Your task to perform on an android device: turn on bluetooth scan Image 0: 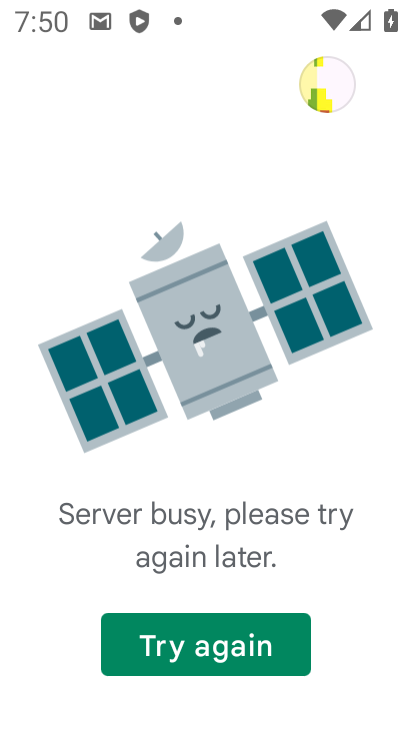
Step 0: press home button
Your task to perform on an android device: turn on bluetooth scan Image 1: 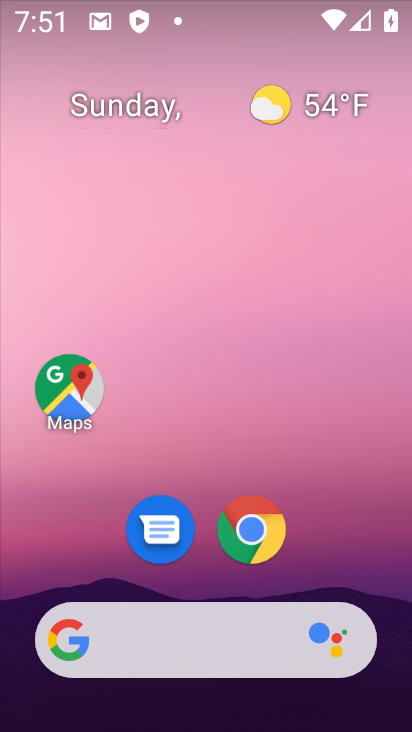
Step 1: drag from (237, 589) to (262, 78)
Your task to perform on an android device: turn on bluetooth scan Image 2: 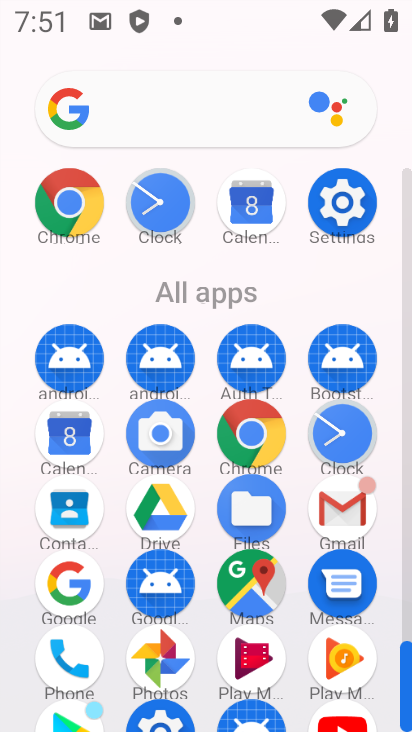
Step 2: click (343, 223)
Your task to perform on an android device: turn on bluetooth scan Image 3: 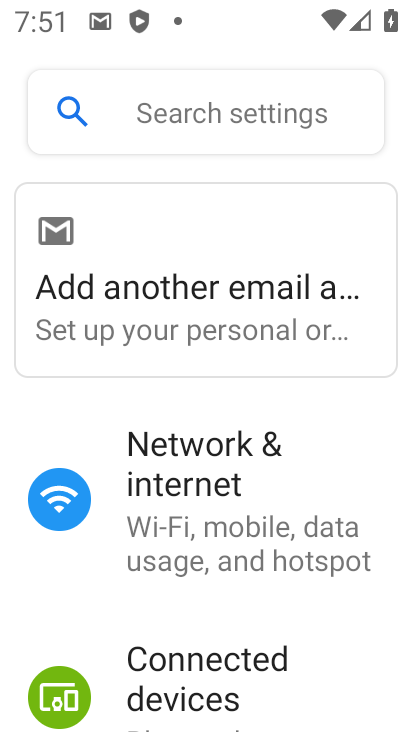
Step 3: drag from (204, 606) to (241, 329)
Your task to perform on an android device: turn on bluetooth scan Image 4: 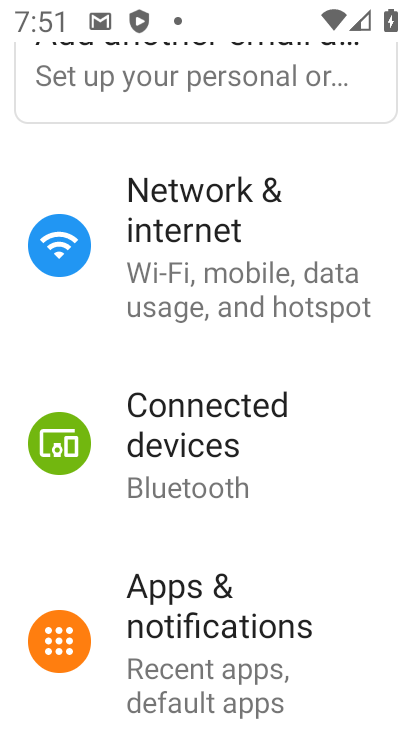
Step 4: drag from (222, 575) to (248, 247)
Your task to perform on an android device: turn on bluetooth scan Image 5: 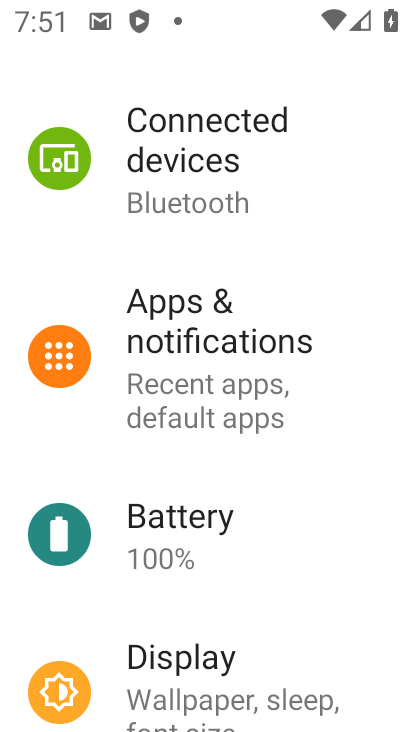
Step 5: drag from (209, 598) to (252, 291)
Your task to perform on an android device: turn on bluetooth scan Image 6: 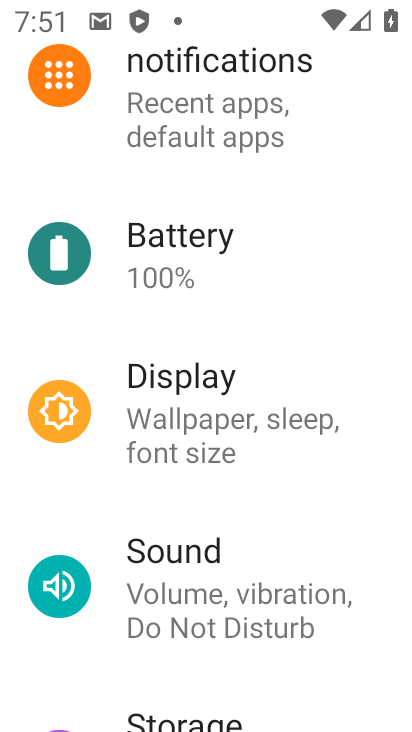
Step 6: drag from (222, 547) to (257, 264)
Your task to perform on an android device: turn on bluetooth scan Image 7: 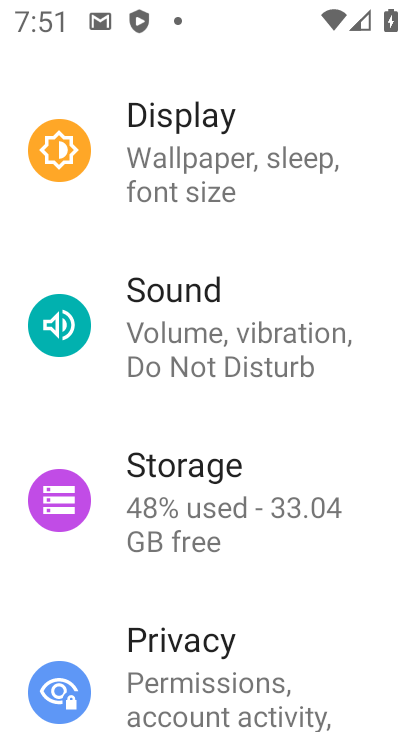
Step 7: drag from (199, 565) to (257, 282)
Your task to perform on an android device: turn on bluetooth scan Image 8: 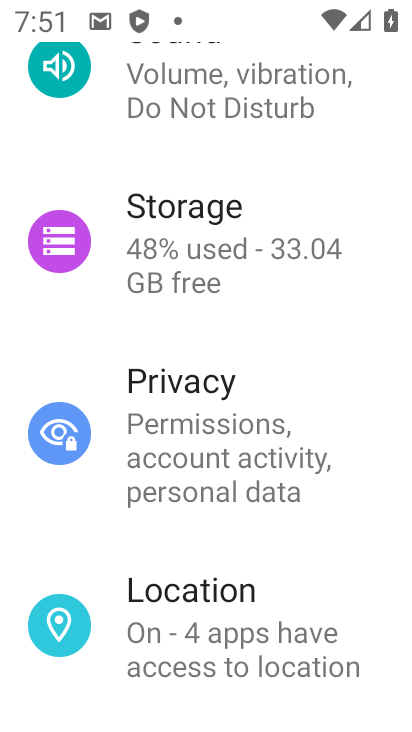
Step 8: click (226, 637)
Your task to perform on an android device: turn on bluetooth scan Image 9: 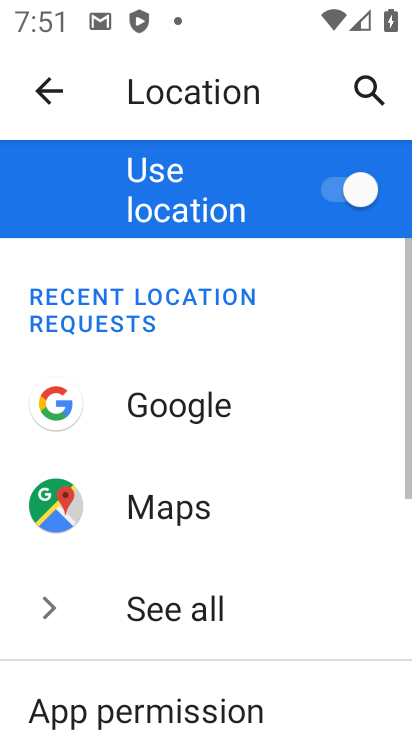
Step 9: drag from (189, 655) to (246, 343)
Your task to perform on an android device: turn on bluetooth scan Image 10: 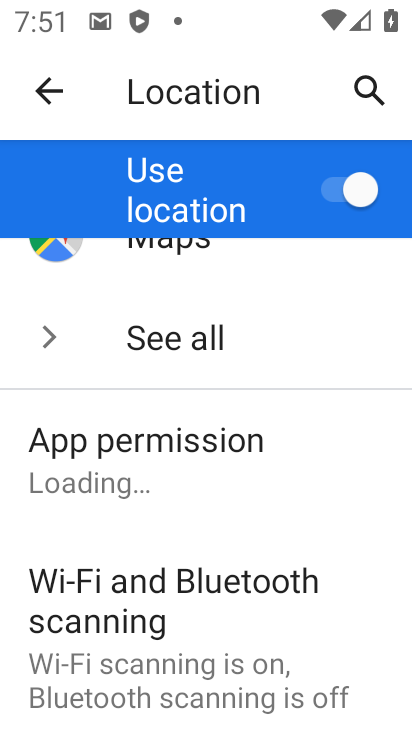
Step 10: drag from (150, 644) to (163, 556)
Your task to perform on an android device: turn on bluetooth scan Image 11: 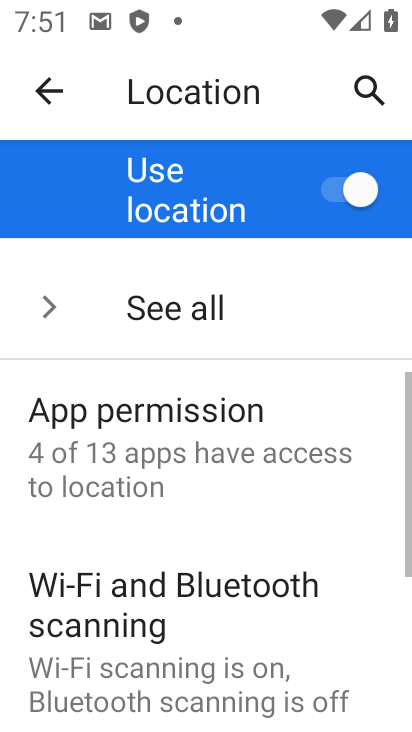
Step 11: click (149, 563)
Your task to perform on an android device: turn on bluetooth scan Image 12: 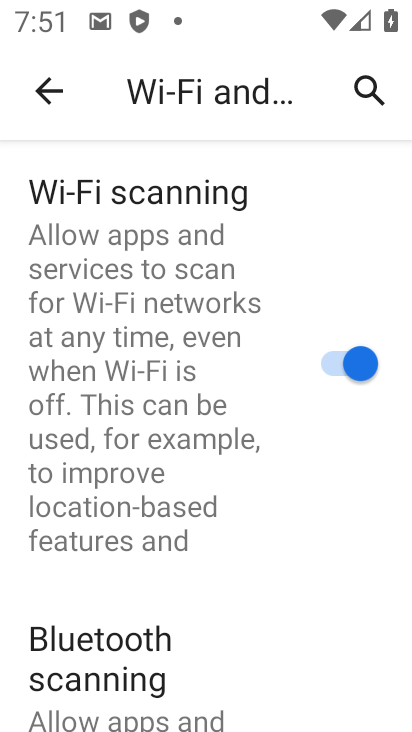
Step 12: drag from (191, 624) to (228, 402)
Your task to perform on an android device: turn on bluetooth scan Image 13: 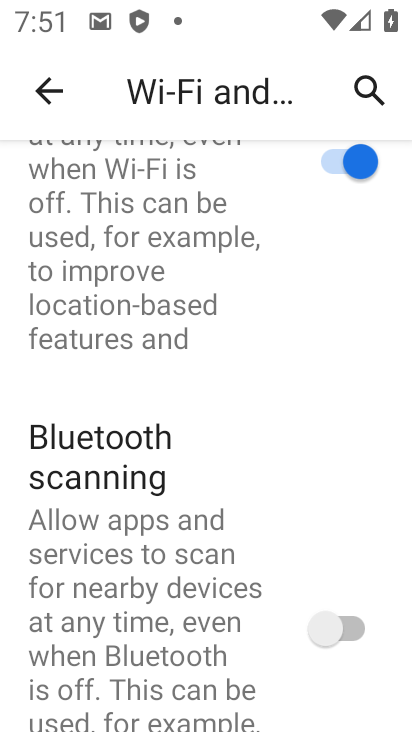
Step 13: click (366, 630)
Your task to perform on an android device: turn on bluetooth scan Image 14: 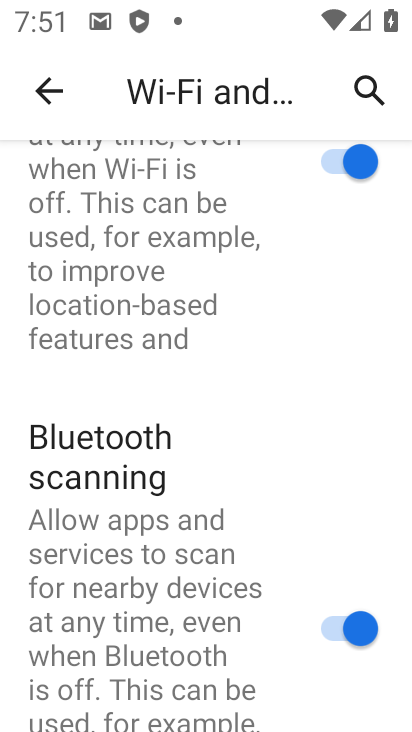
Step 14: task complete